Your task to perform on an android device: Go to Yahoo.com Image 0: 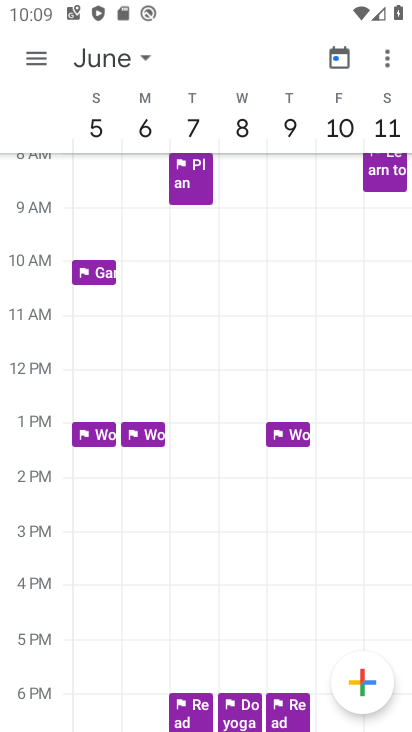
Step 0: press home button
Your task to perform on an android device: Go to Yahoo.com Image 1: 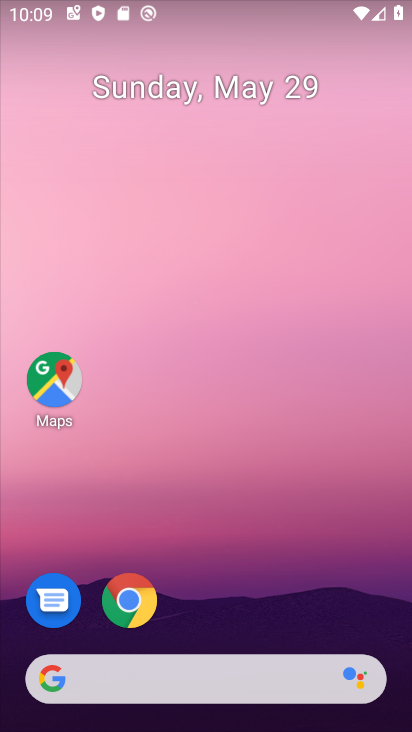
Step 1: click (143, 597)
Your task to perform on an android device: Go to Yahoo.com Image 2: 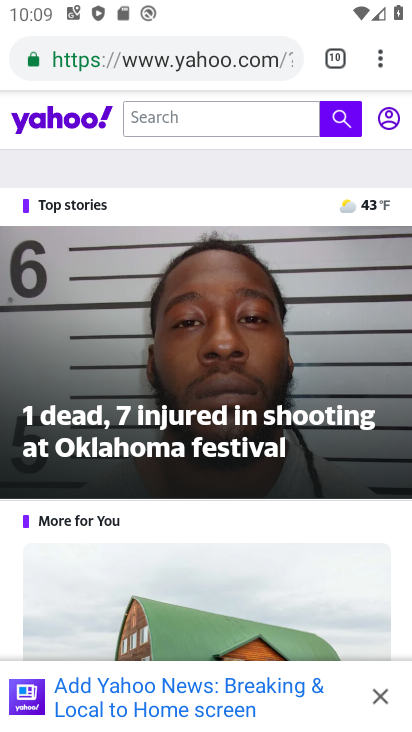
Step 2: task complete